Your task to perform on an android device: toggle priority inbox in the gmail app Image 0: 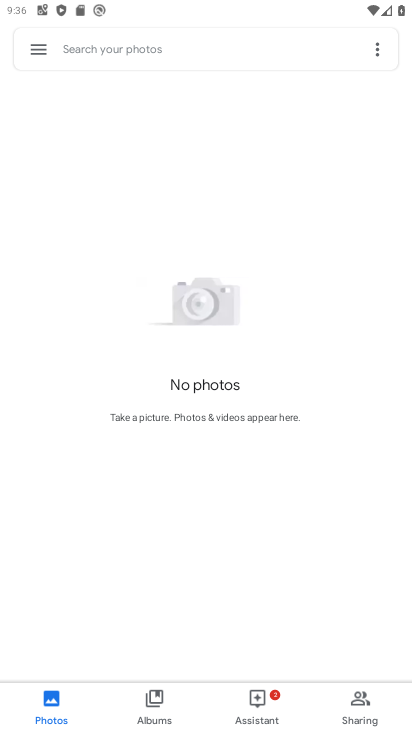
Step 0: drag from (188, 573) to (310, 228)
Your task to perform on an android device: toggle priority inbox in the gmail app Image 1: 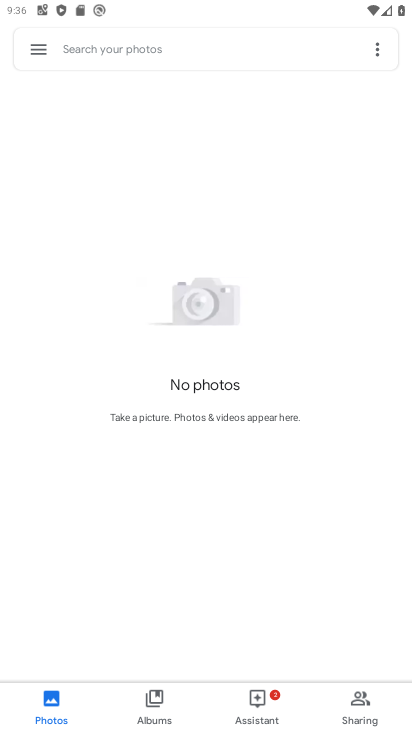
Step 1: press home button
Your task to perform on an android device: toggle priority inbox in the gmail app Image 2: 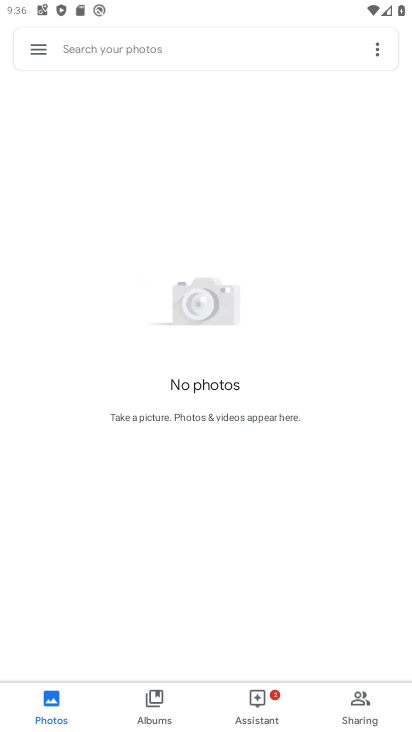
Step 2: press home button
Your task to perform on an android device: toggle priority inbox in the gmail app Image 3: 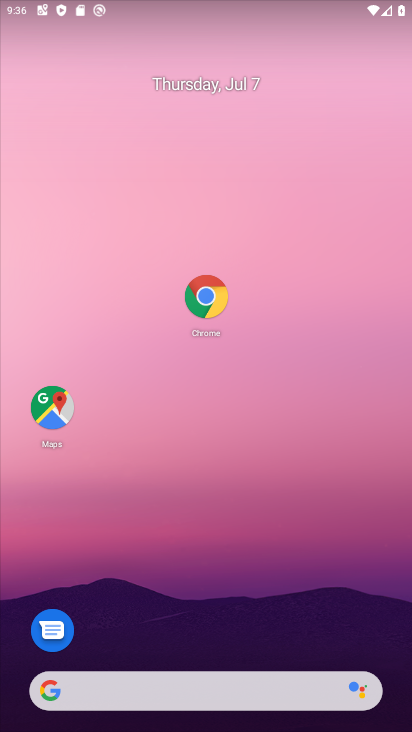
Step 3: drag from (171, 630) to (291, 70)
Your task to perform on an android device: toggle priority inbox in the gmail app Image 4: 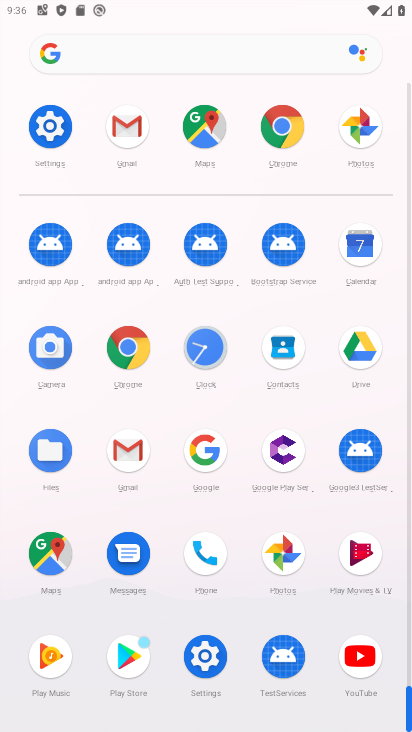
Step 4: click (122, 457)
Your task to perform on an android device: toggle priority inbox in the gmail app Image 5: 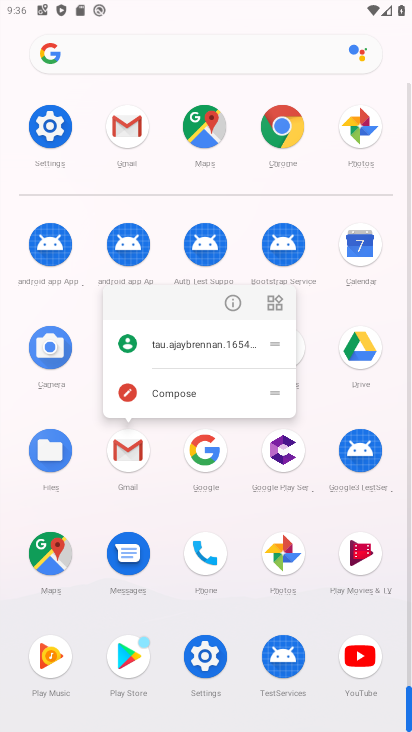
Step 5: click (224, 302)
Your task to perform on an android device: toggle priority inbox in the gmail app Image 6: 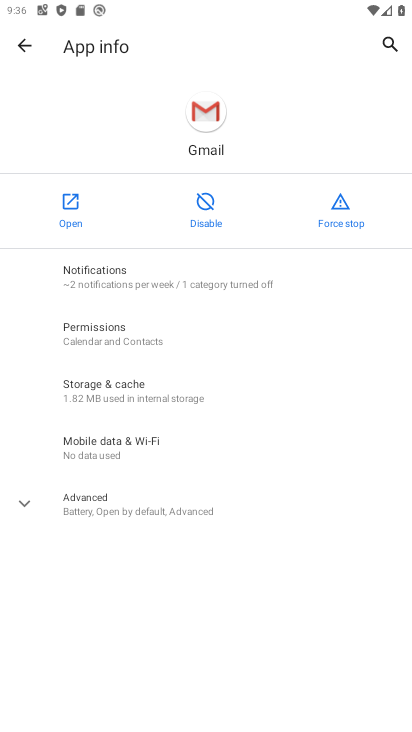
Step 6: click (62, 207)
Your task to perform on an android device: toggle priority inbox in the gmail app Image 7: 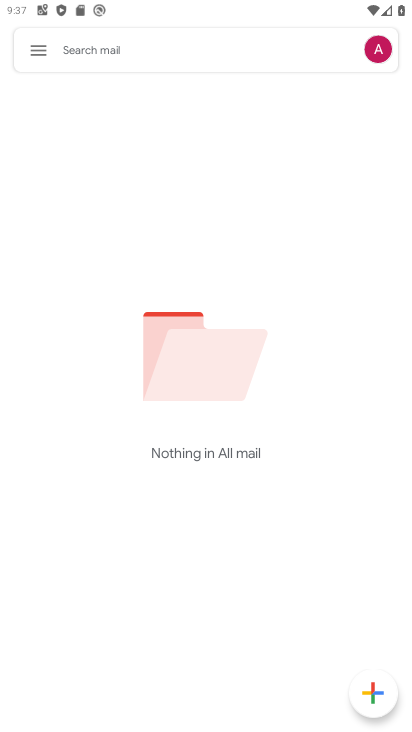
Step 7: drag from (227, 610) to (230, 241)
Your task to perform on an android device: toggle priority inbox in the gmail app Image 8: 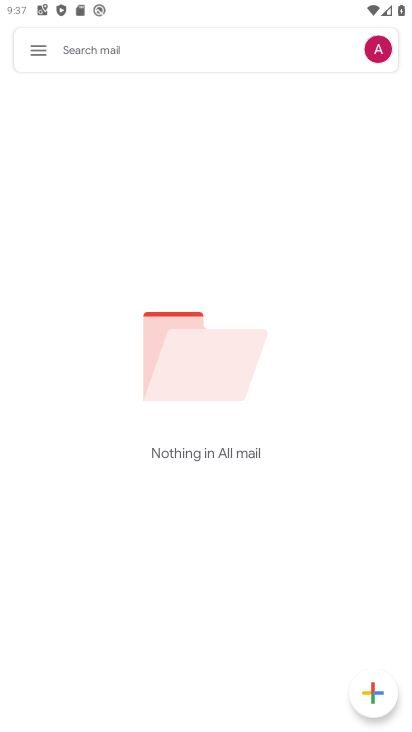
Step 8: click (28, 50)
Your task to perform on an android device: toggle priority inbox in the gmail app Image 9: 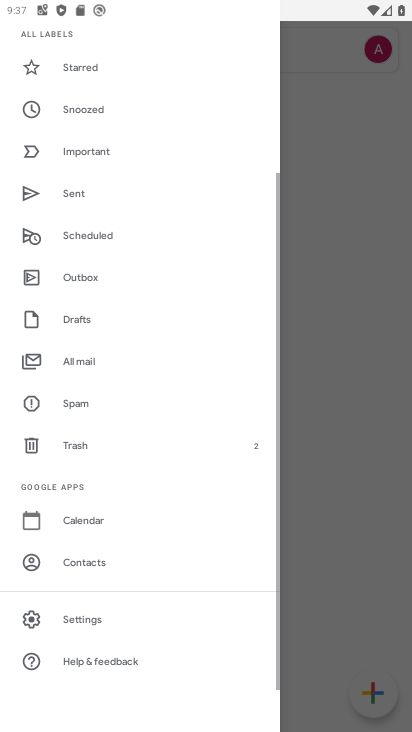
Step 9: click (79, 616)
Your task to perform on an android device: toggle priority inbox in the gmail app Image 10: 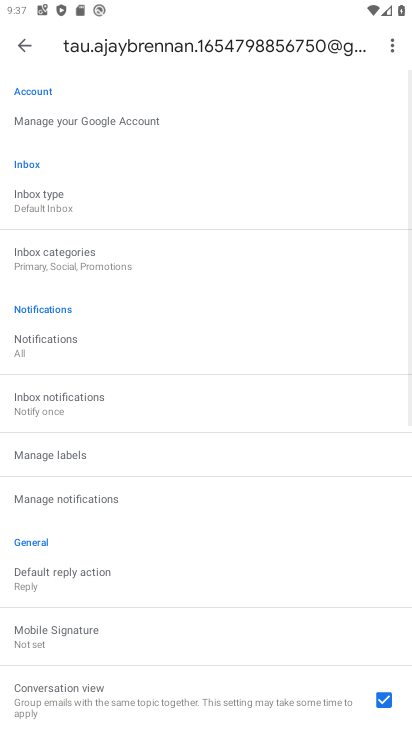
Step 10: click (118, 208)
Your task to perform on an android device: toggle priority inbox in the gmail app Image 11: 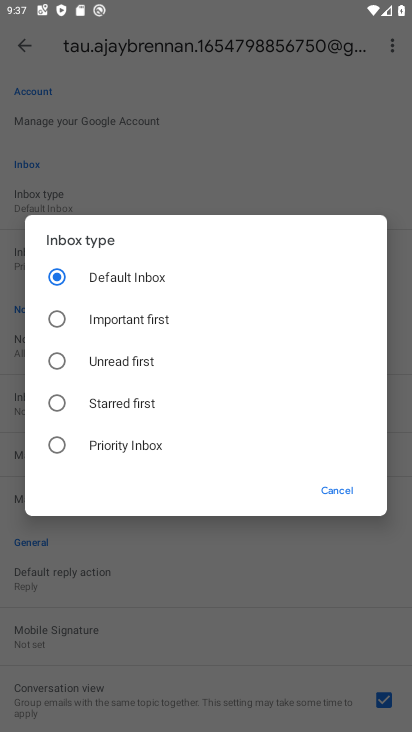
Step 11: click (47, 449)
Your task to perform on an android device: toggle priority inbox in the gmail app Image 12: 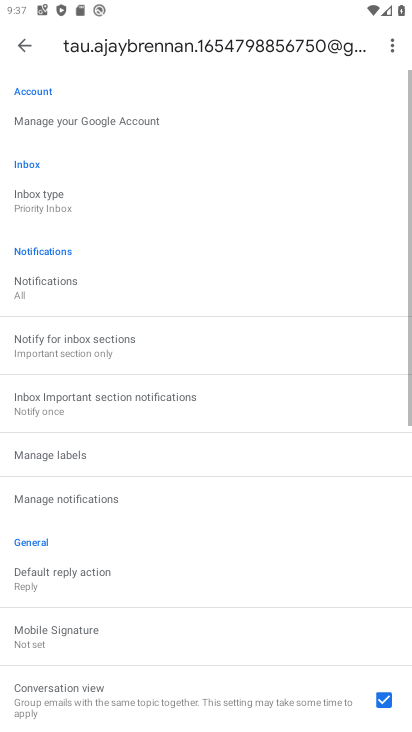
Step 12: task complete